Your task to perform on an android device: Clear the cart on bestbuy.com. Image 0: 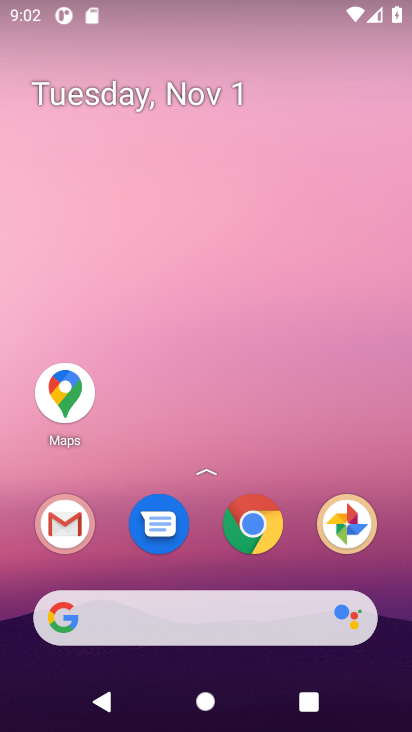
Step 0: press home button
Your task to perform on an android device: Clear the cart on bestbuy.com. Image 1: 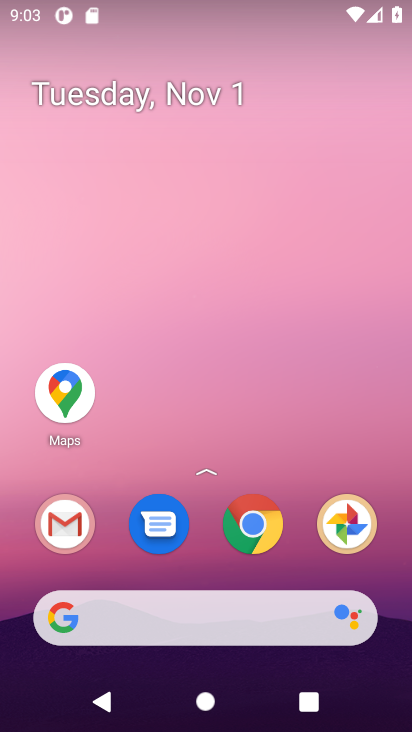
Step 1: click (96, 612)
Your task to perform on an android device: Clear the cart on bestbuy.com. Image 2: 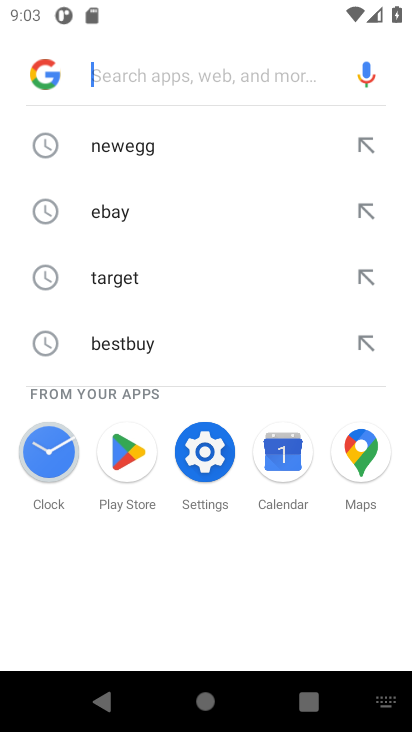
Step 2: click (149, 344)
Your task to perform on an android device: Clear the cart on bestbuy.com. Image 3: 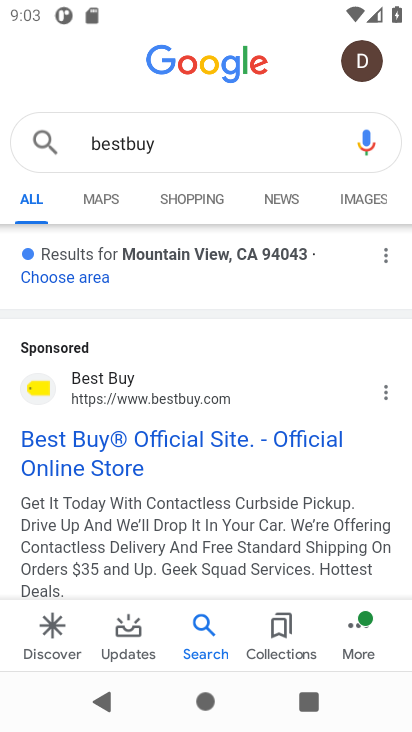
Step 3: click (120, 447)
Your task to perform on an android device: Clear the cart on bestbuy.com. Image 4: 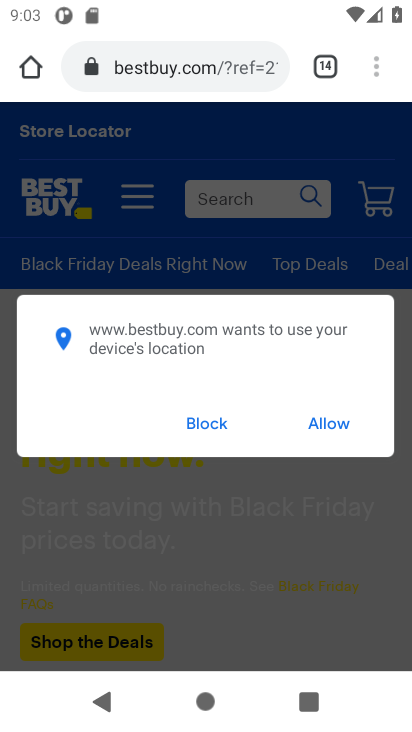
Step 4: click (214, 427)
Your task to perform on an android device: Clear the cart on bestbuy.com. Image 5: 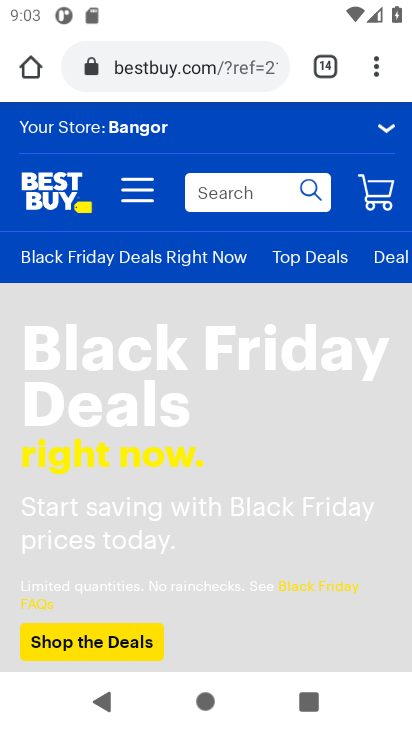
Step 5: click (382, 193)
Your task to perform on an android device: Clear the cart on bestbuy.com. Image 6: 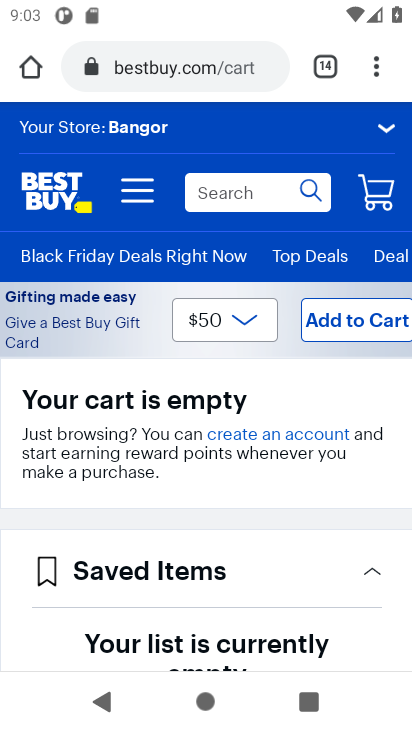
Step 6: task complete